Your task to perform on an android device: Go to ESPN.com Image 0: 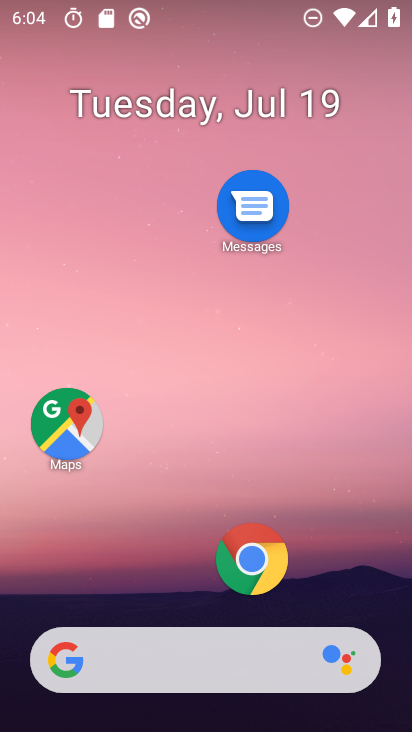
Step 0: click (238, 553)
Your task to perform on an android device: Go to ESPN.com Image 1: 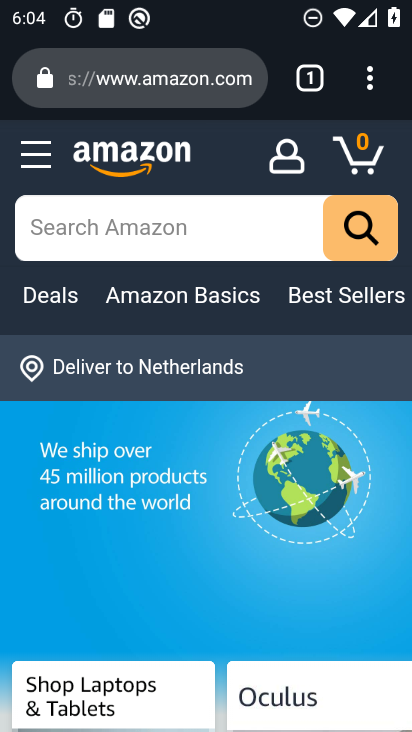
Step 1: click (320, 75)
Your task to perform on an android device: Go to ESPN.com Image 2: 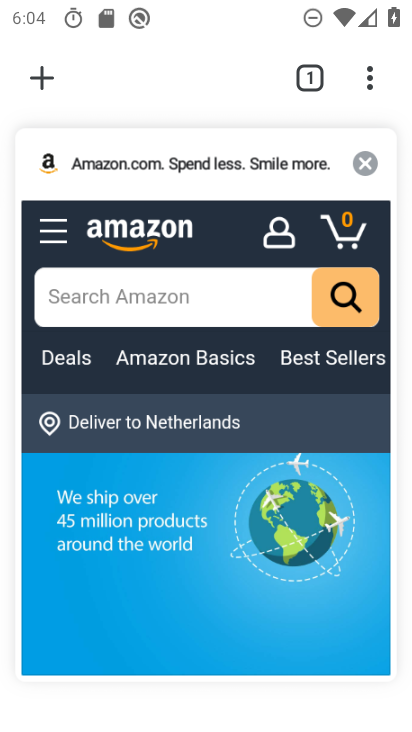
Step 2: click (69, 91)
Your task to perform on an android device: Go to ESPN.com Image 3: 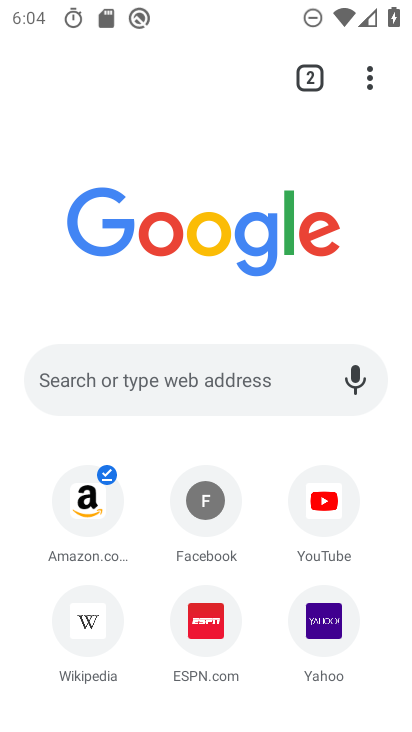
Step 3: click (220, 620)
Your task to perform on an android device: Go to ESPN.com Image 4: 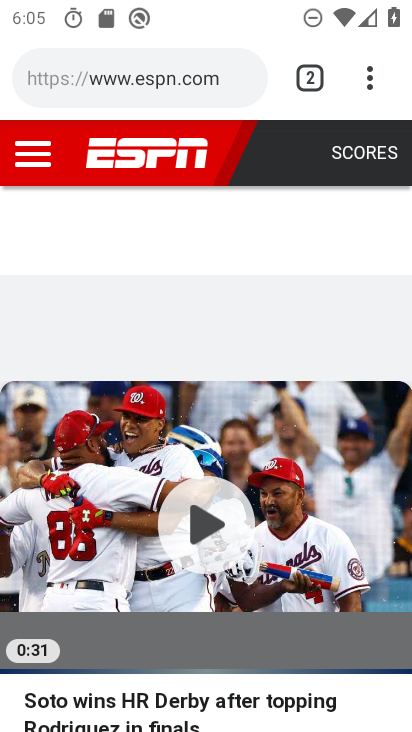
Step 4: task complete